Your task to perform on an android device: Open ESPN.com Image 0: 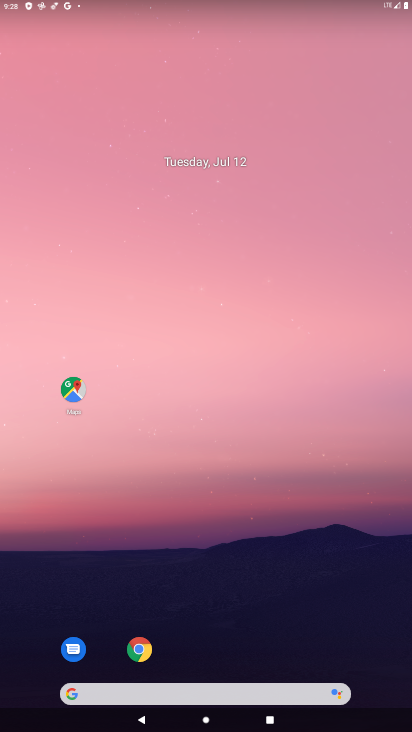
Step 0: click (145, 652)
Your task to perform on an android device: Open ESPN.com Image 1: 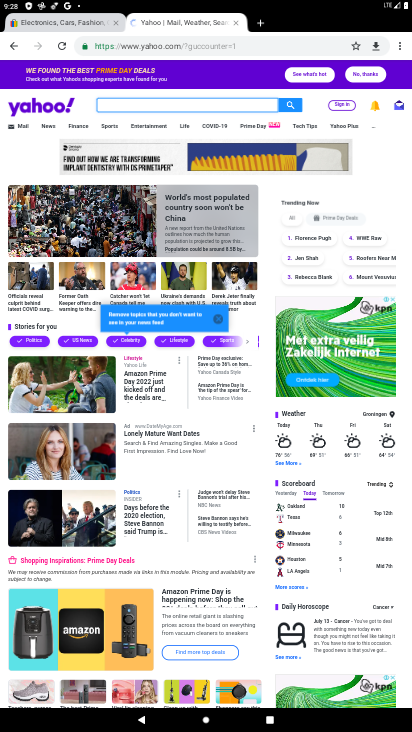
Step 1: click (265, 21)
Your task to perform on an android device: Open ESPN.com Image 2: 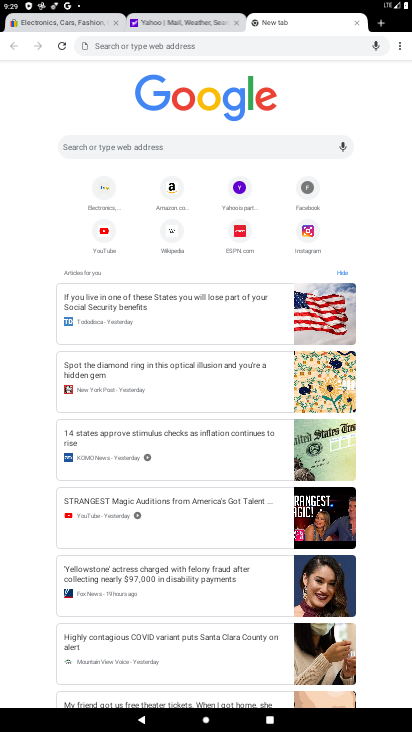
Step 2: click (239, 226)
Your task to perform on an android device: Open ESPN.com Image 3: 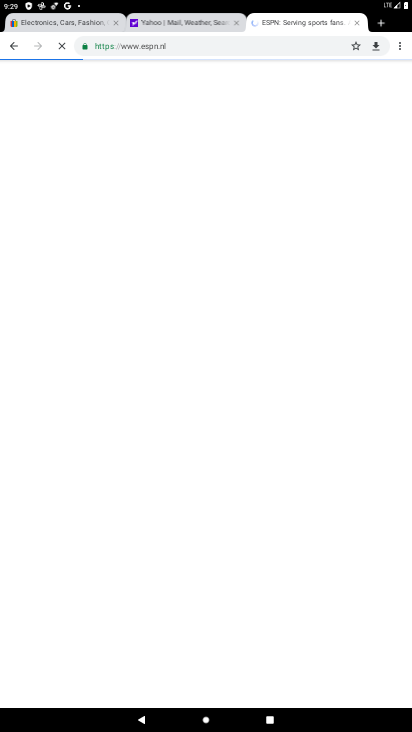
Step 3: task complete